Your task to perform on an android device: turn on sleep mode Image 0: 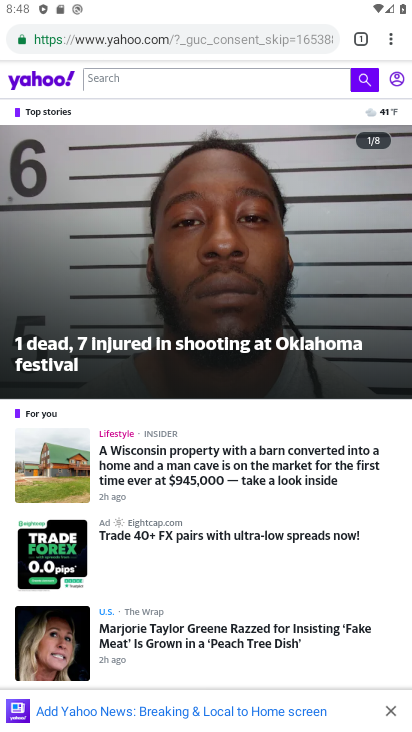
Step 0: press home button
Your task to perform on an android device: turn on sleep mode Image 1: 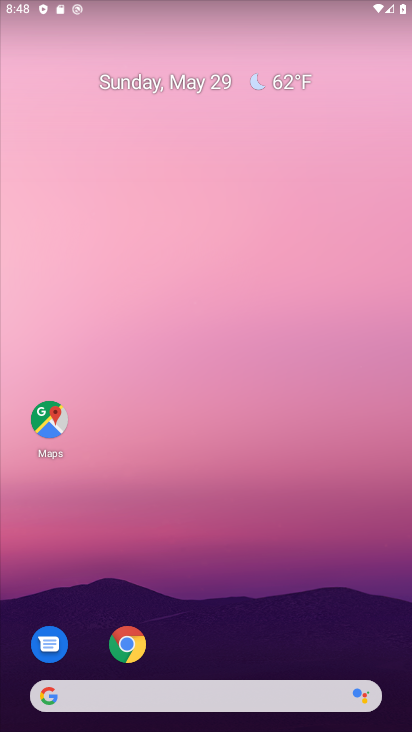
Step 1: drag from (154, 13) to (147, 465)
Your task to perform on an android device: turn on sleep mode Image 2: 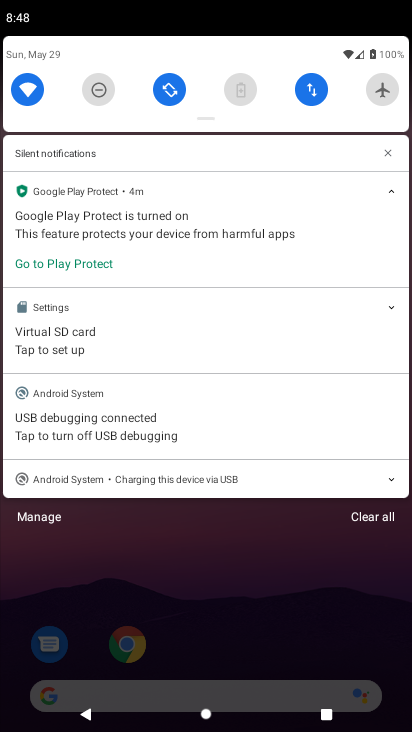
Step 2: drag from (200, 118) to (190, 536)
Your task to perform on an android device: turn on sleep mode Image 3: 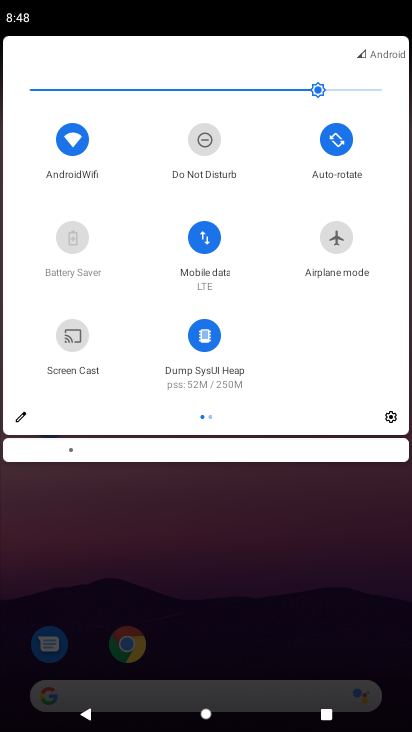
Step 3: click (19, 419)
Your task to perform on an android device: turn on sleep mode Image 4: 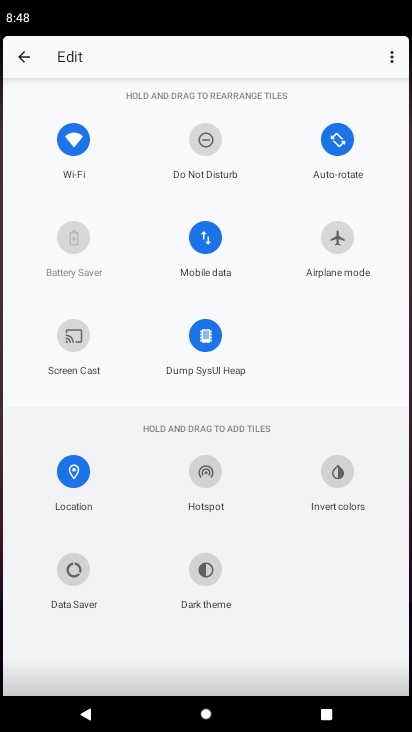
Step 4: press home button
Your task to perform on an android device: turn on sleep mode Image 5: 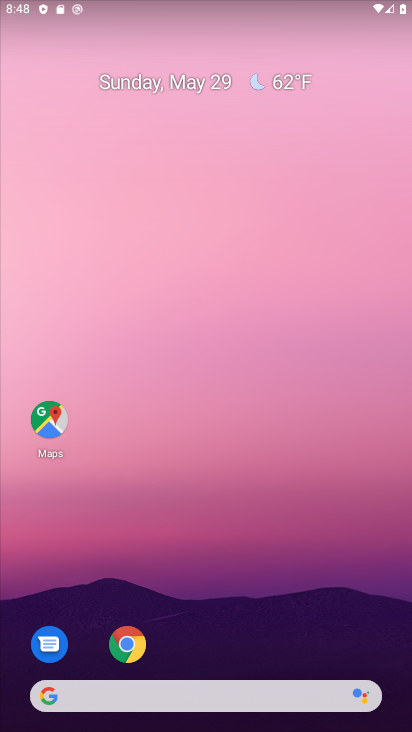
Step 5: drag from (130, 721) to (113, 46)
Your task to perform on an android device: turn on sleep mode Image 6: 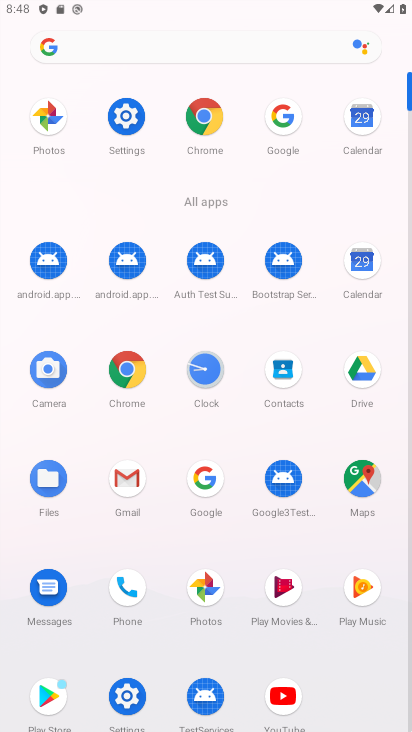
Step 6: click (129, 119)
Your task to perform on an android device: turn on sleep mode Image 7: 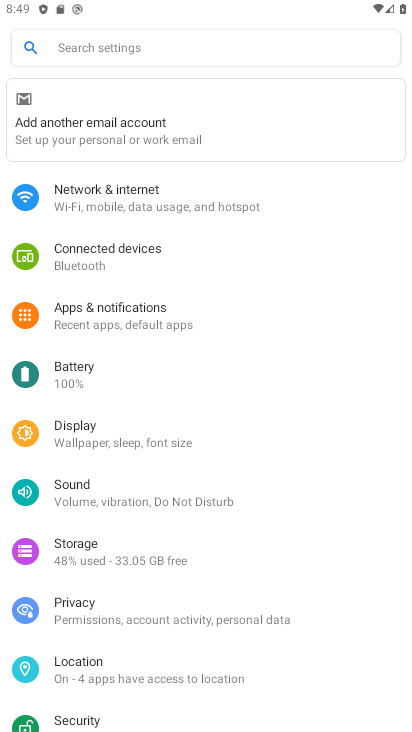
Step 7: task complete